Your task to perform on an android device: set the stopwatch Image 0: 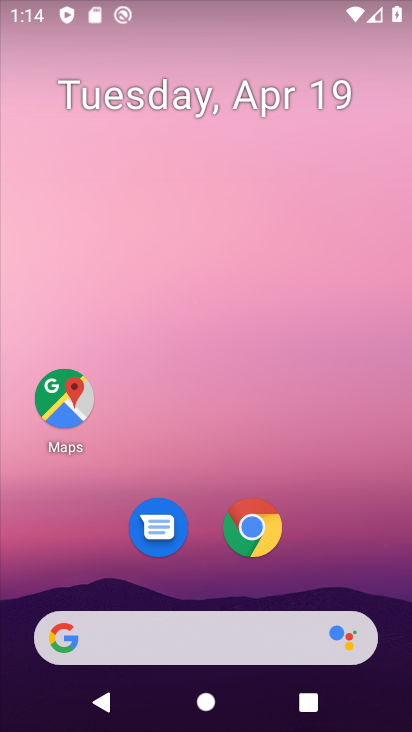
Step 0: drag from (324, 562) to (263, 183)
Your task to perform on an android device: set the stopwatch Image 1: 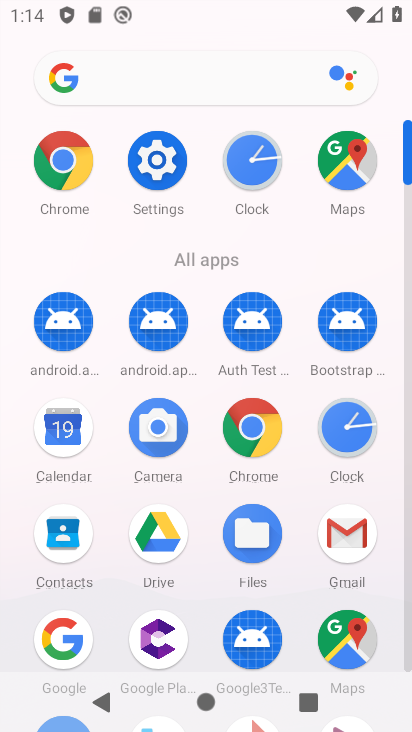
Step 1: click (353, 445)
Your task to perform on an android device: set the stopwatch Image 2: 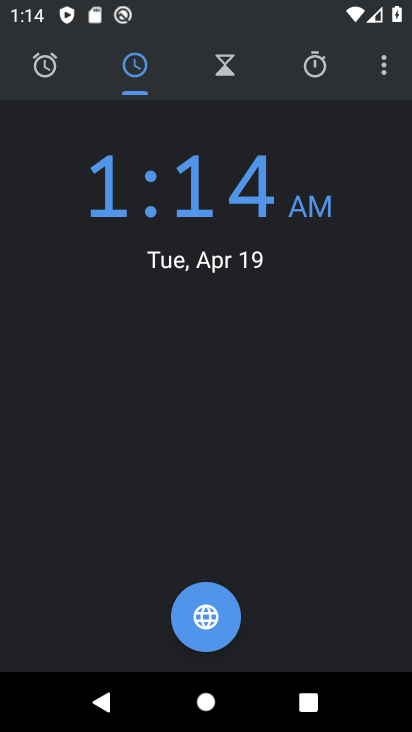
Step 2: click (378, 69)
Your task to perform on an android device: set the stopwatch Image 3: 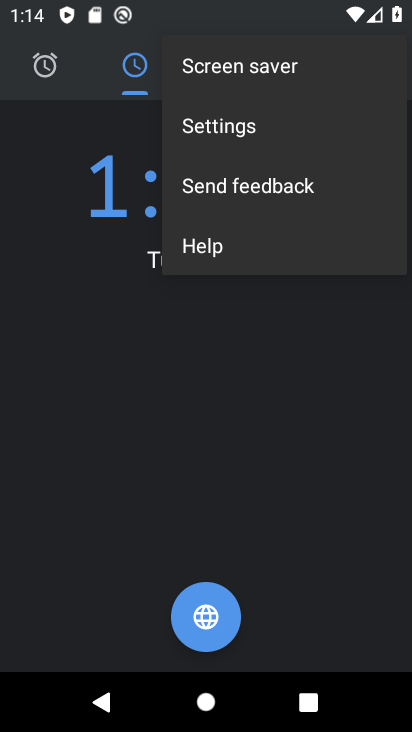
Step 3: click (323, 58)
Your task to perform on an android device: set the stopwatch Image 4: 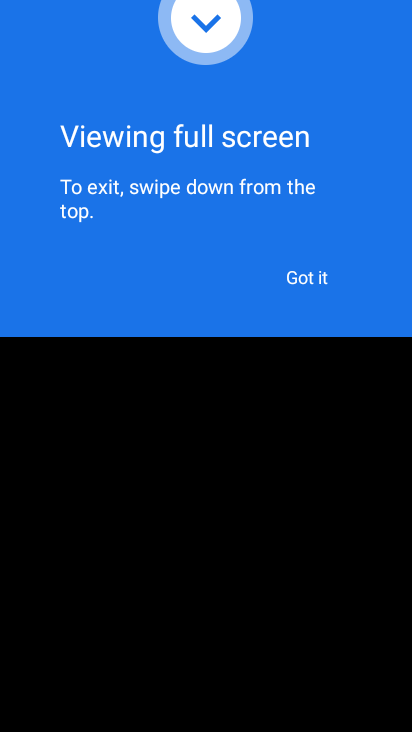
Step 4: click (304, 290)
Your task to perform on an android device: set the stopwatch Image 5: 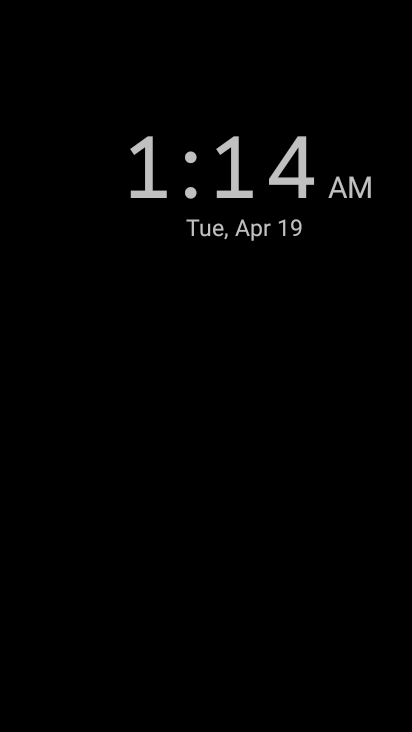
Step 5: press back button
Your task to perform on an android device: set the stopwatch Image 6: 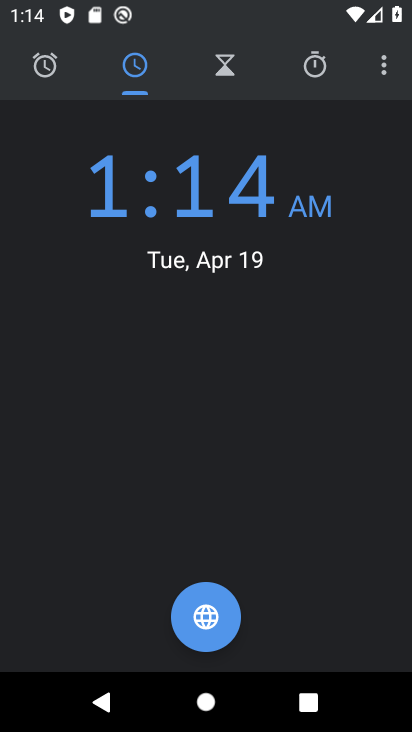
Step 6: click (324, 63)
Your task to perform on an android device: set the stopwatch Image 7: 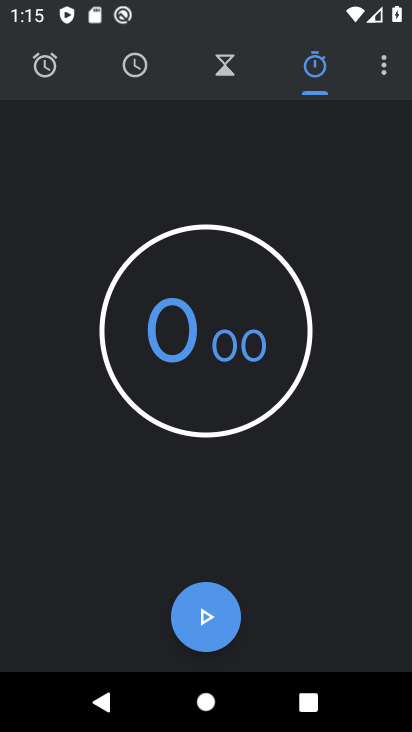
Step 7: click (206, 609)
Your task to perform on an android device: set the stopwatch Image 8: 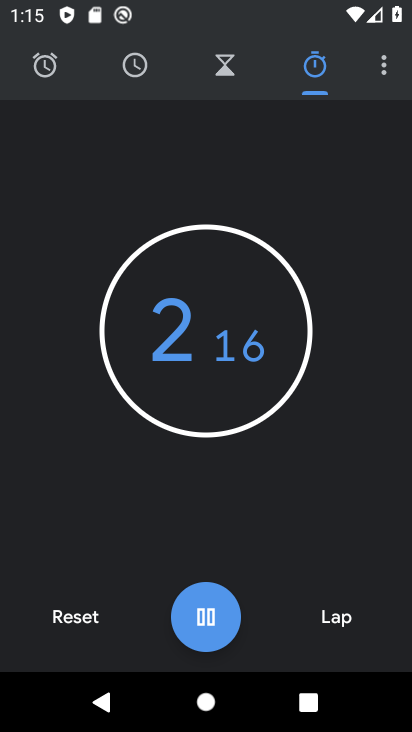
Step 8: task complete